Your task to perform on an android device: delete a single message in the gmail app Image 0: 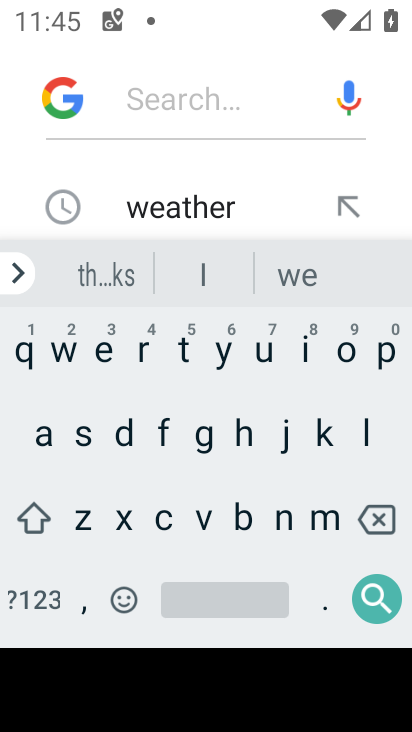
Step 0: press home button
Your task to perform on an android device: delete a single message in the gmail app Image 1: 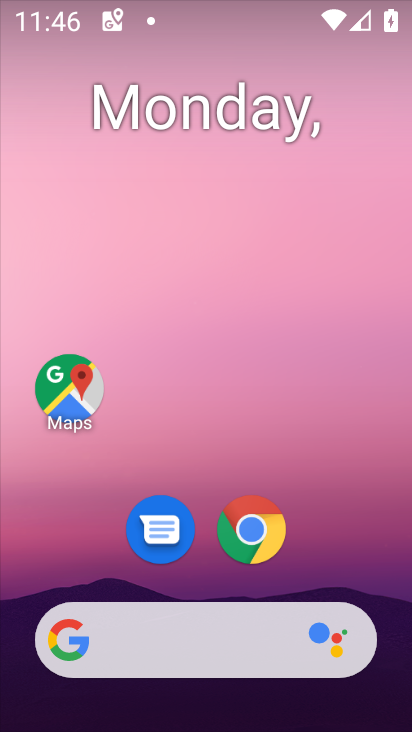
Step 1: drag from (195, 673) to (221, 222)
Your task to perform on an android device: delete a single message in the gmail app Image 2: 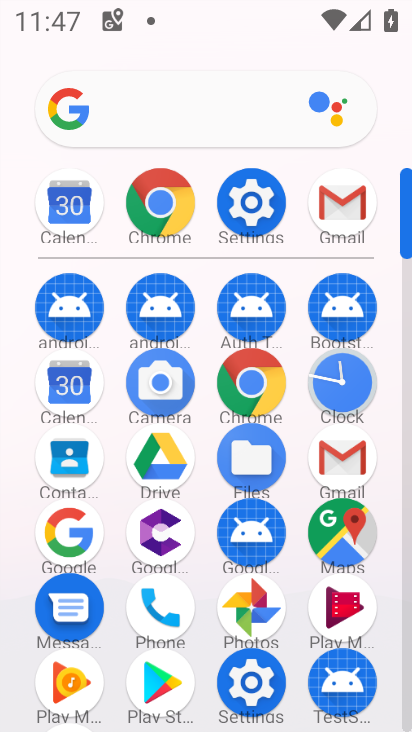
Step 2: click (330, 191)
Your task to perform on an android device: delete a single message in the gmail app Image 3: 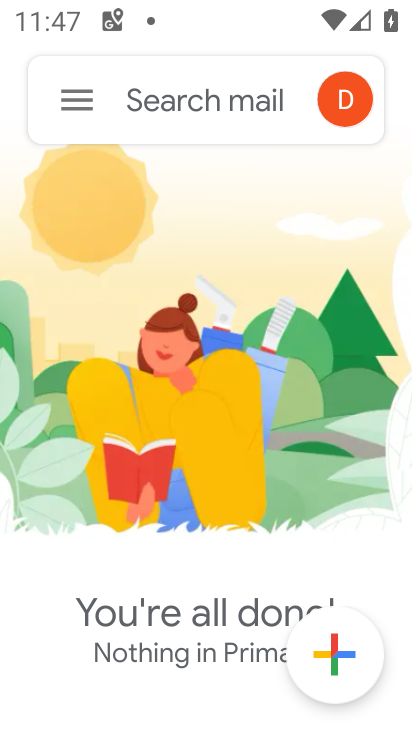
Step 3: click (84, 89)
Your task to perform on an android device: delete a single message in the gmail app Image 4: 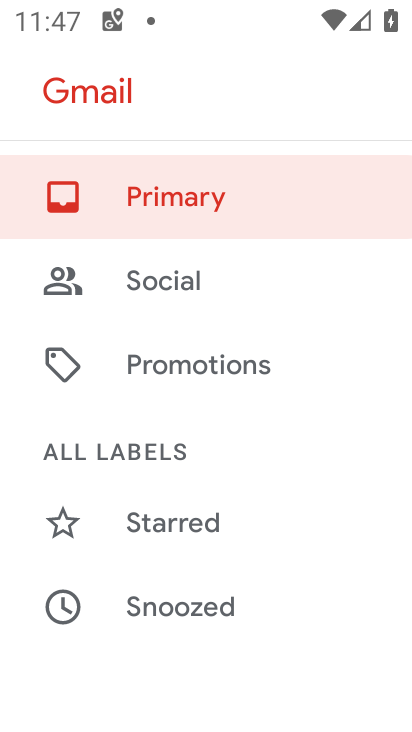
Step 4: click (177, 193)
Your task to perform on an android device: delete a single message in the gmail app Image 5: 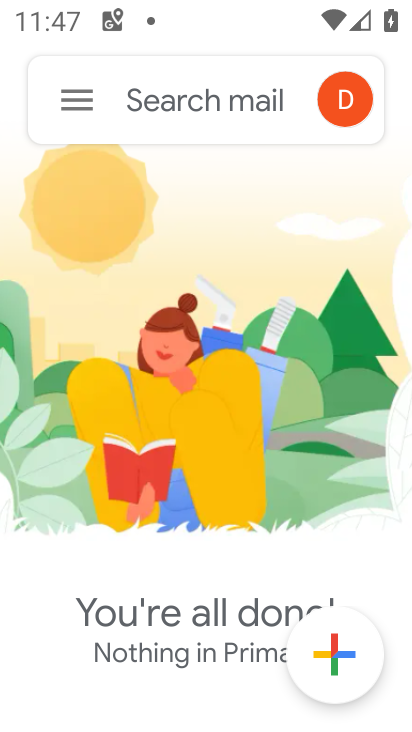
Step 5: task complete